Your task to perform on an android device: Google the capital of Argentina Image 0: 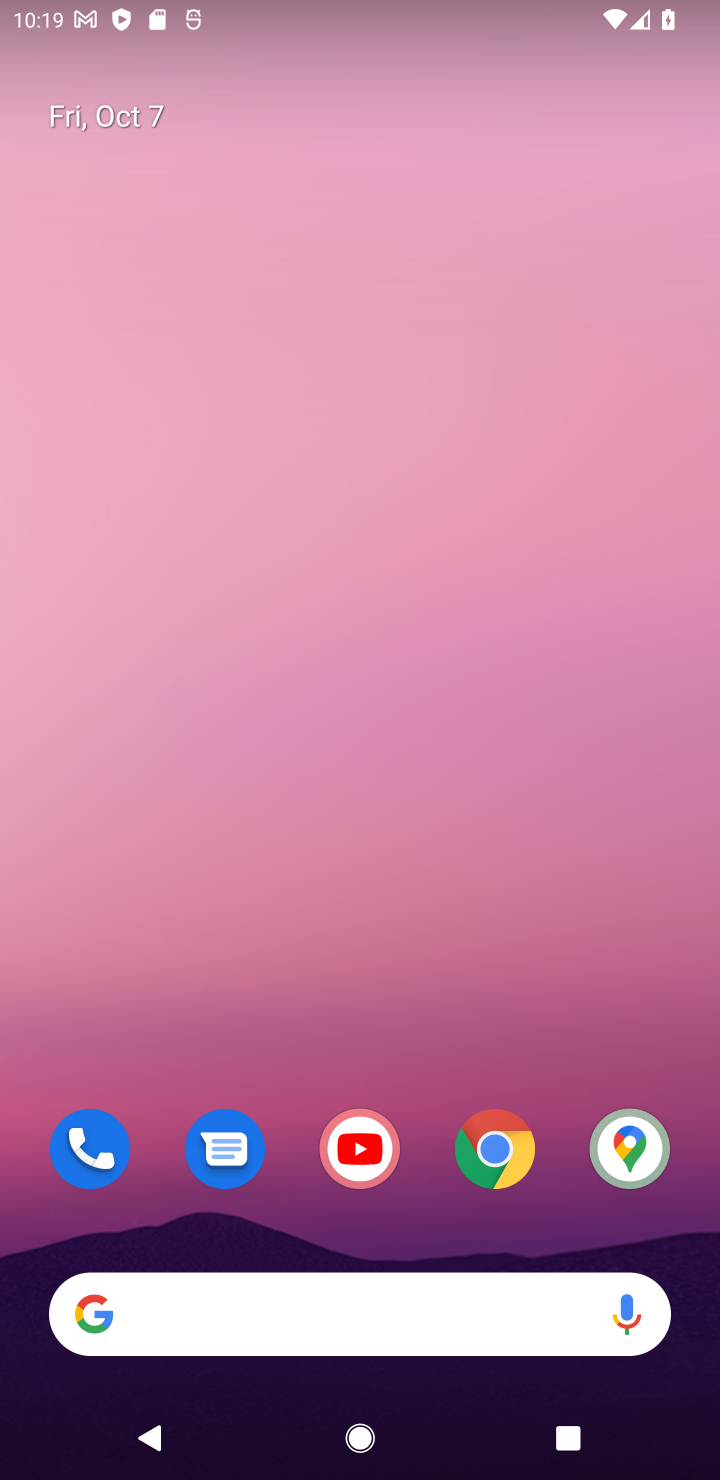
Step 0: click (368, 1286)
Your task to perform on an android device: Google the capital of Argentina Image 1: 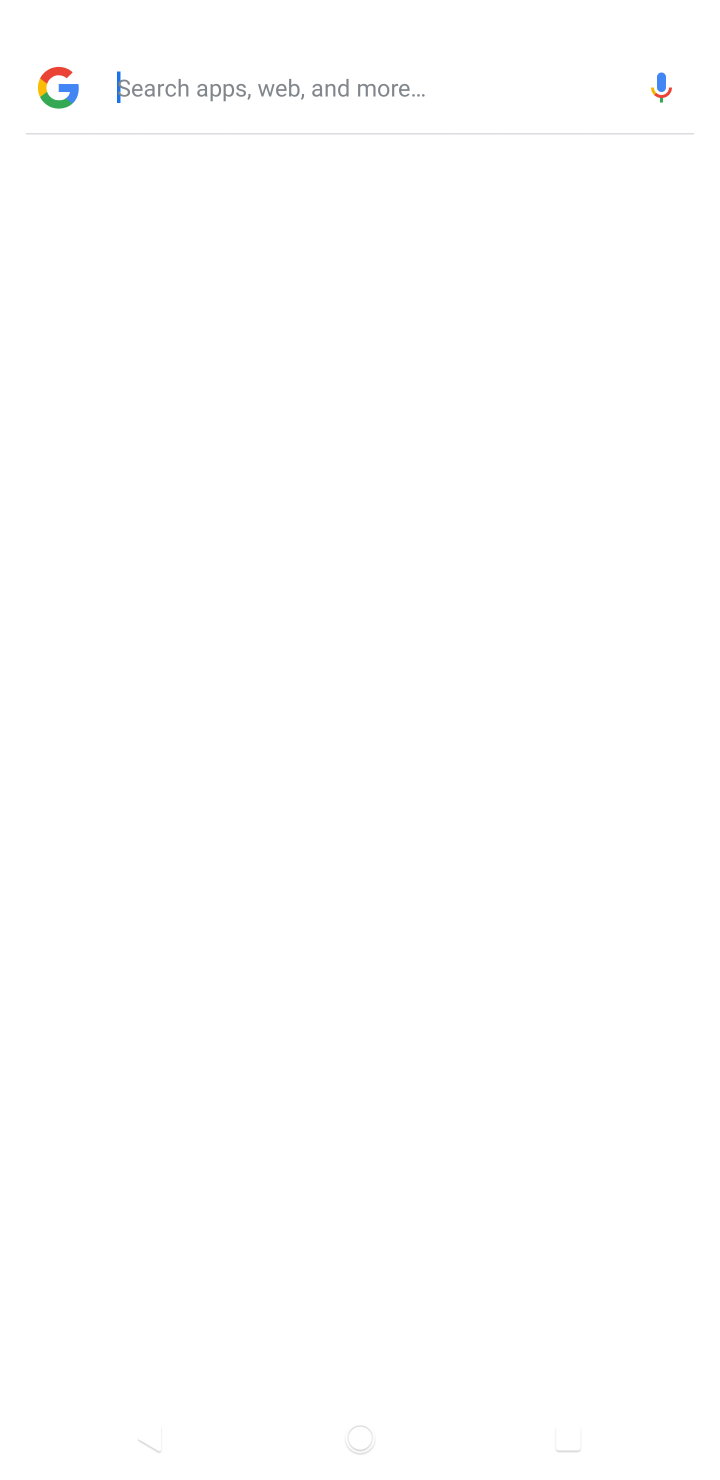
Step 1: type ""
Your task to perform on an android device: Google the capital of Argentina Image 2: 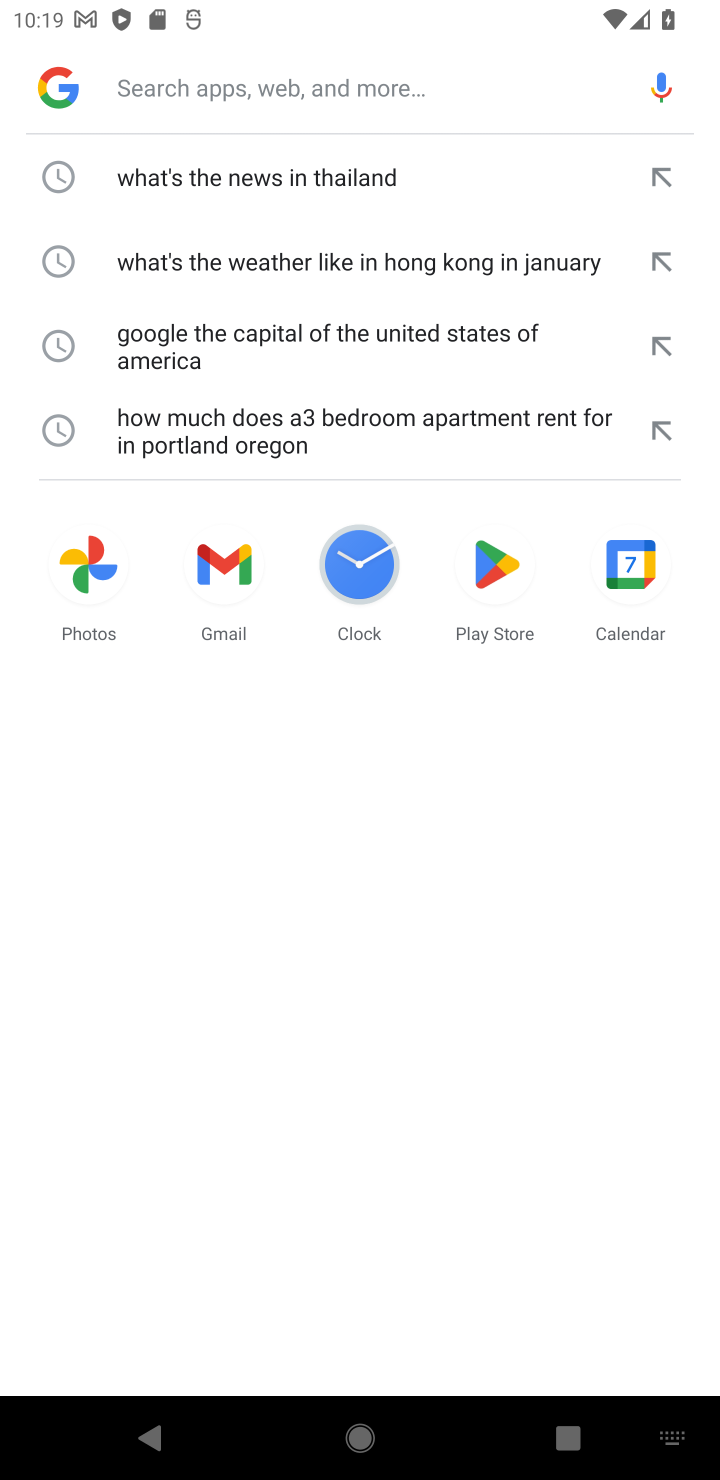
Step 2: type "Google the capital of Argentina"
Your task to perform on an android device: Google the capital of Argentina Image 3: 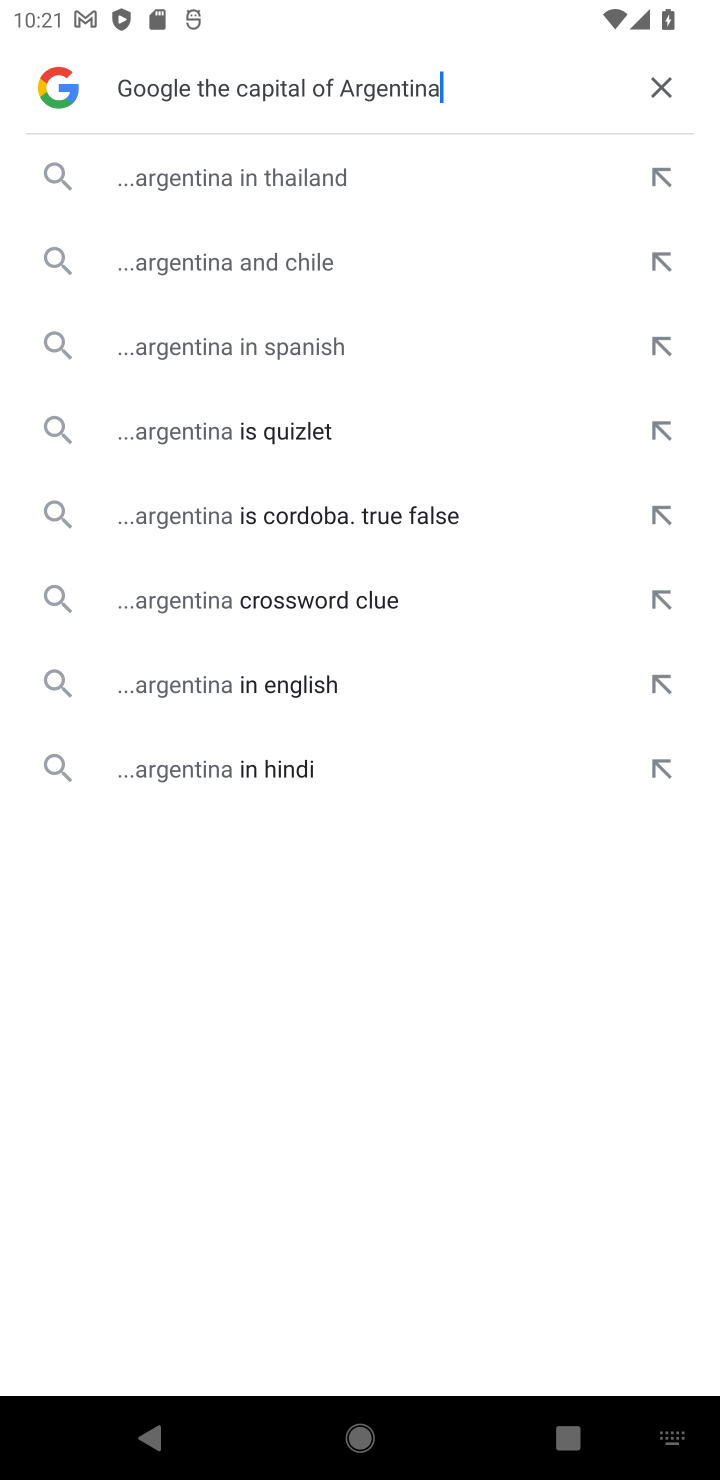
Step 3: click (177, 159)
Your task to perform on an android device: Google the capital of Argentina Image 4: 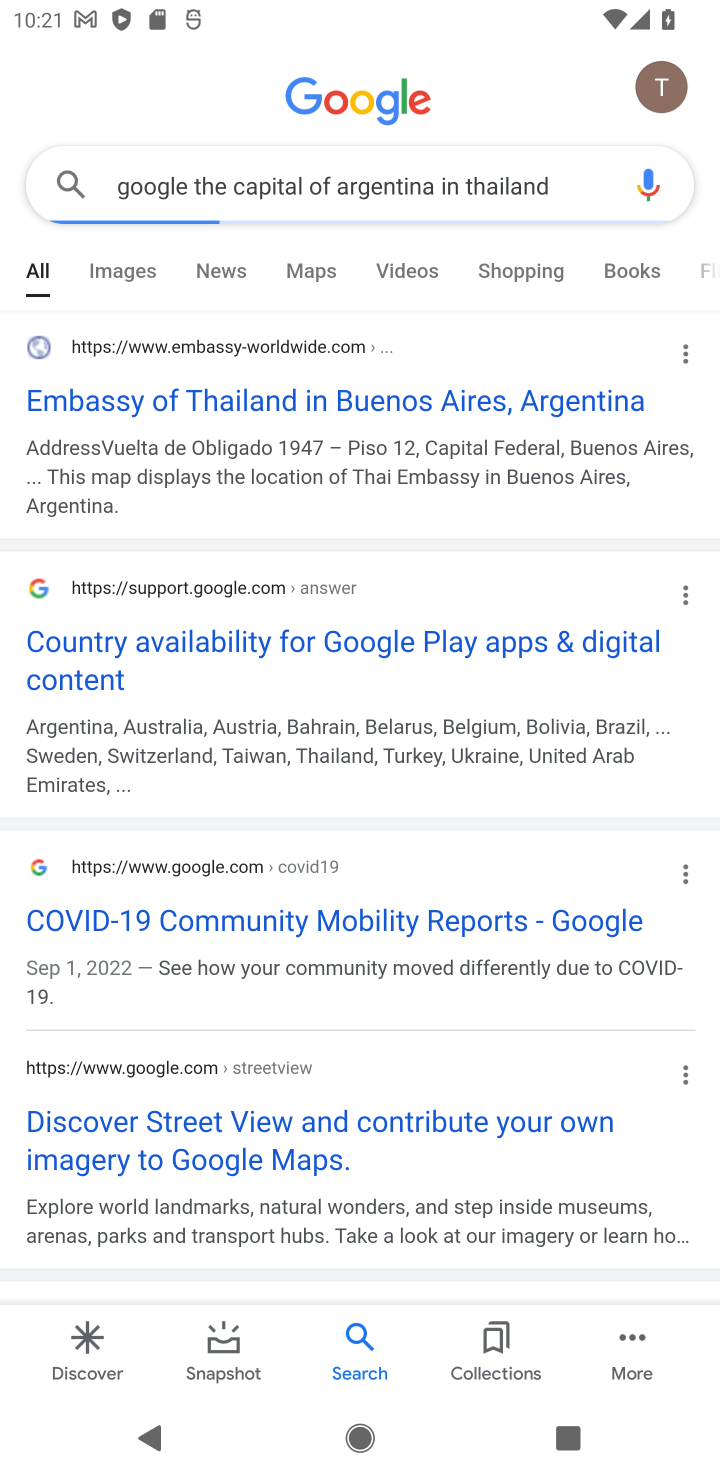
Step 4: task complete